Your task to perform on an android device: toggle priority inbox in the gmail app Image 0: 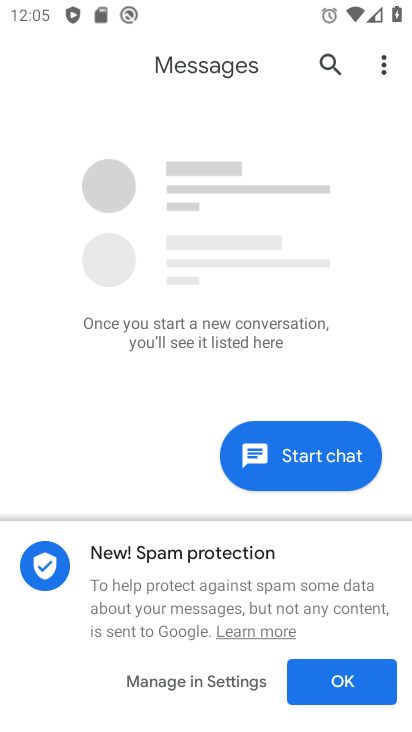
Step 0: press home button
Your task to perform on an android device: toggle priority inbox in the gmail app Image 1: 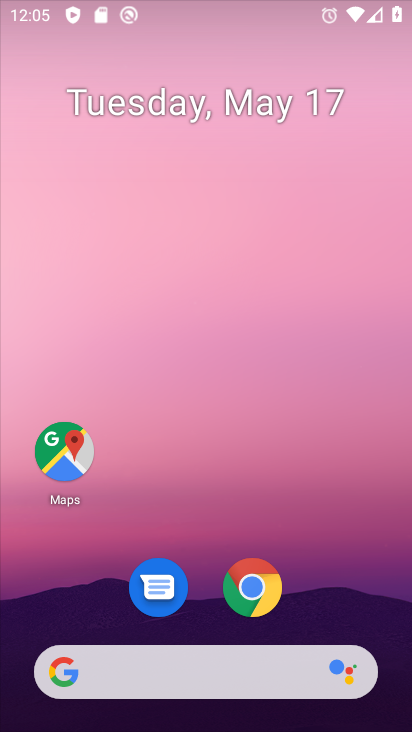
Step 1: drag from (402, 650) to (241, 85)
Your task to perform on an android device: toggle priority inbox in the gmail app Image 2: 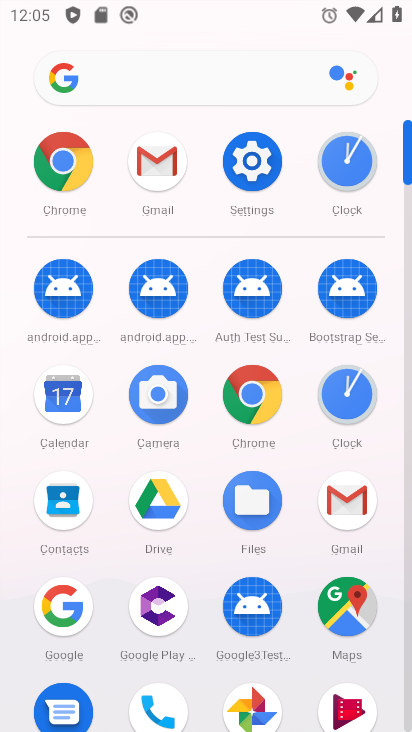
Step 2: click (356, 507)
Your task to perform on an android device: toggle priority inbox in the gmail app Image 3: 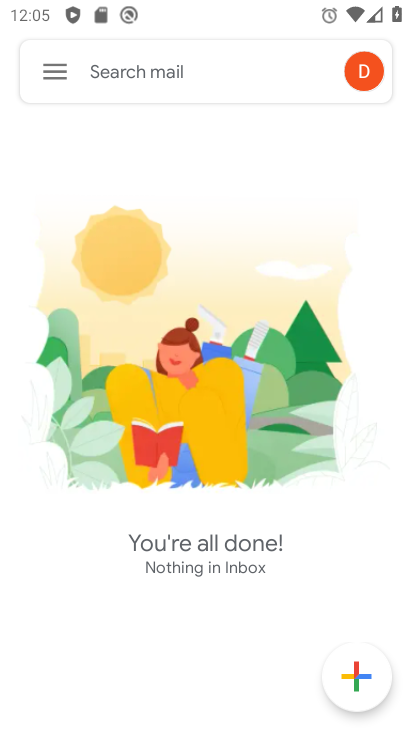
Step 3: click (60, 84)
Your task to perform on an android device: toggle priority inbox in the gmail app Image 4: 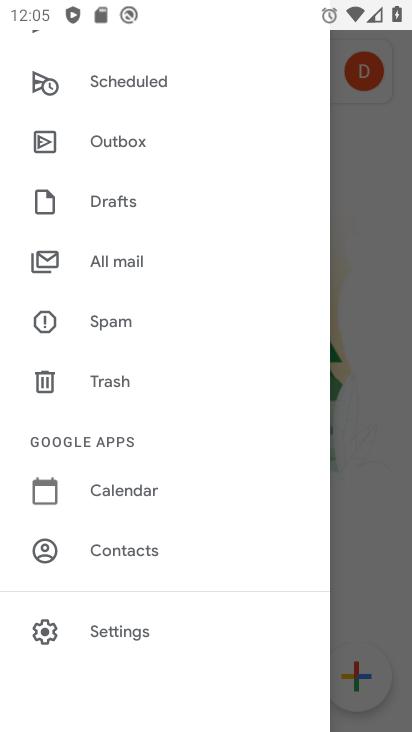
Step 4: click (167, 635)
Your task to perform on an android device: toggle priority inbox in the gmail app Image 5: 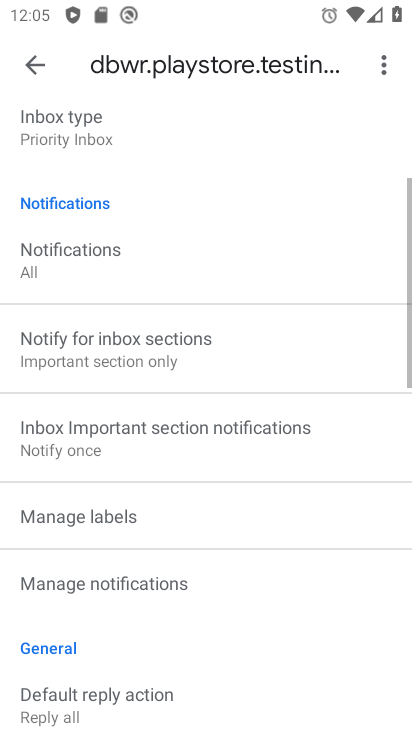
Step 5: click (147, 131)
Your task to perform on an android device: toggle priority inbox in the gmail app Image 6: 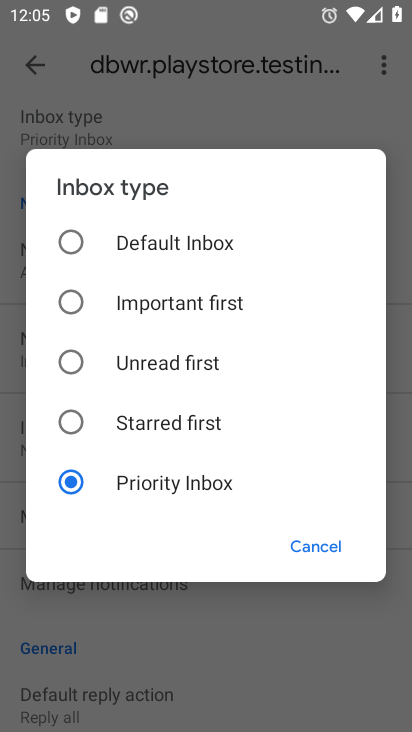
Step 6: click (178, 416)
Your task to perform on an android device: toggle priority inbox in the gmail app Image 7: 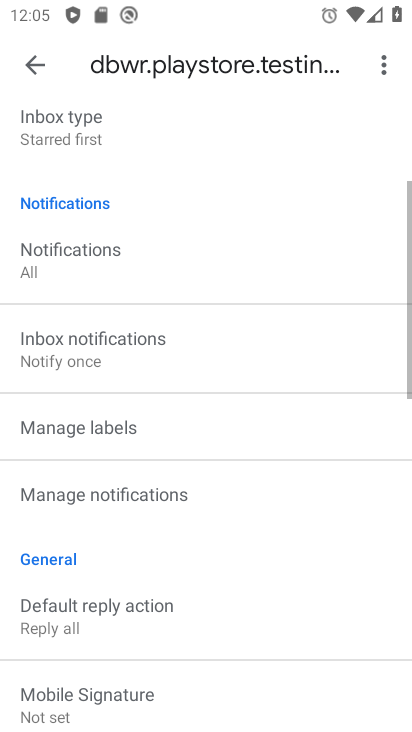
Step 7: task complete